Your task to perform on an android device: open app "WhatsApp Messenger" Image 0: 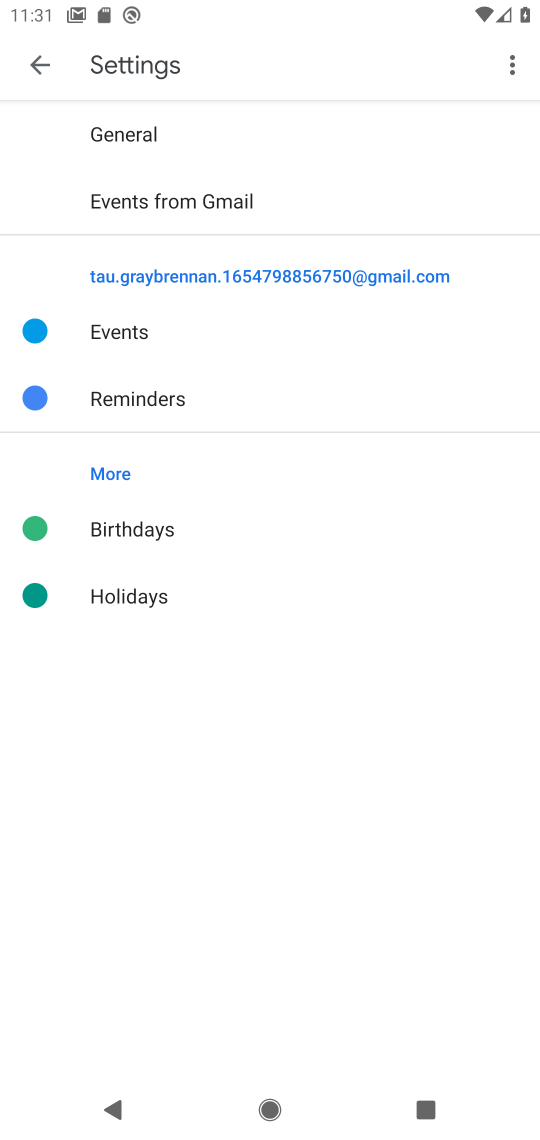
Step 0: press home button
Your task to perform on an android device: open app "WhatsApp Messenger" Image 1: 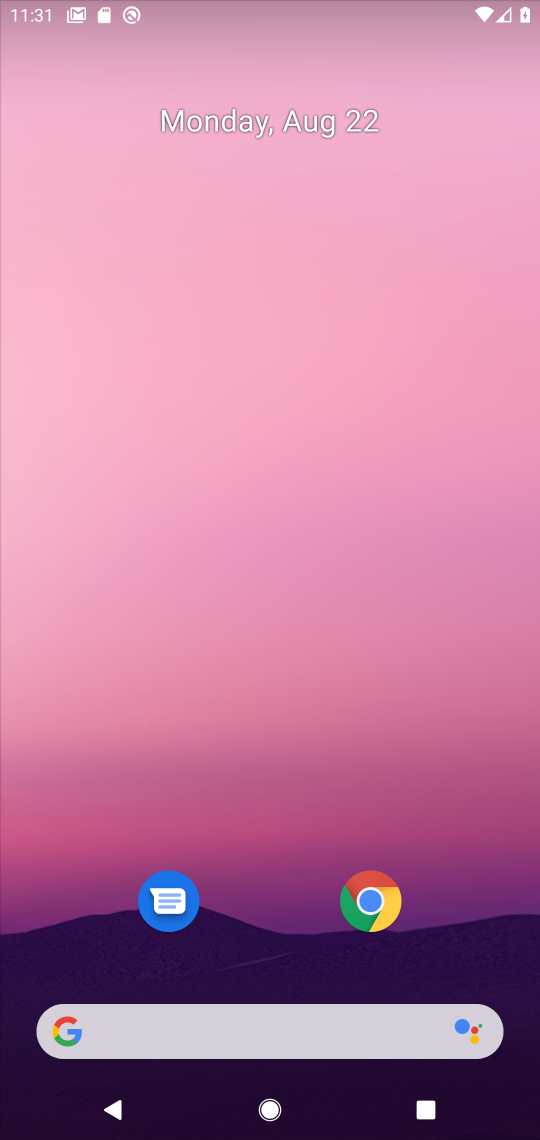
Step 1: drag from (254, 945) to (363, 6)
Your task to perform on an android device: open app "WhatsApp Messenger" Image 2: 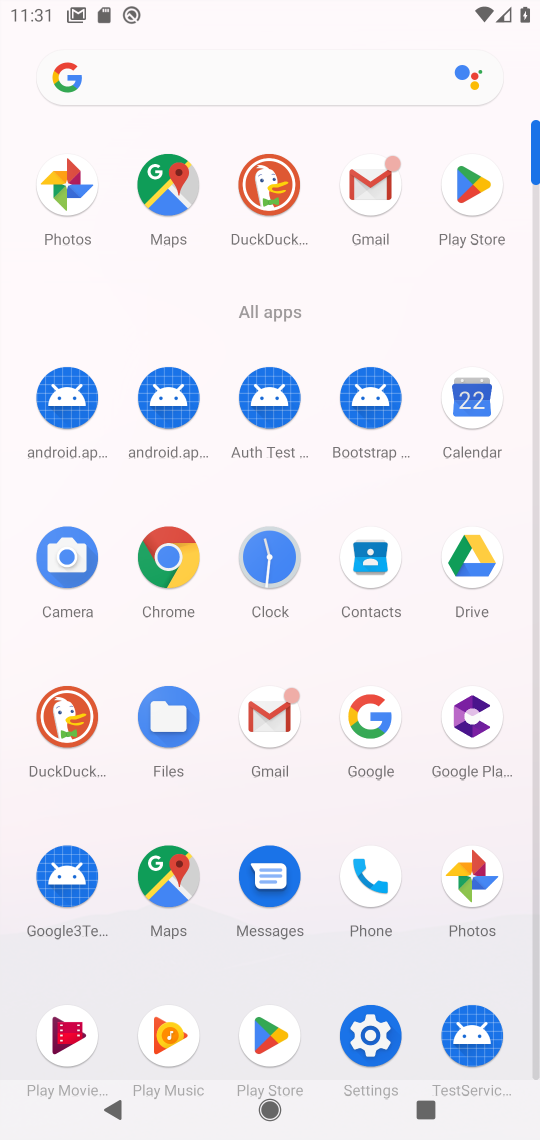
Step 2: click (483, 212)
Your task to perform on an android device: open app "WhatsApp Messenger" Image 3: 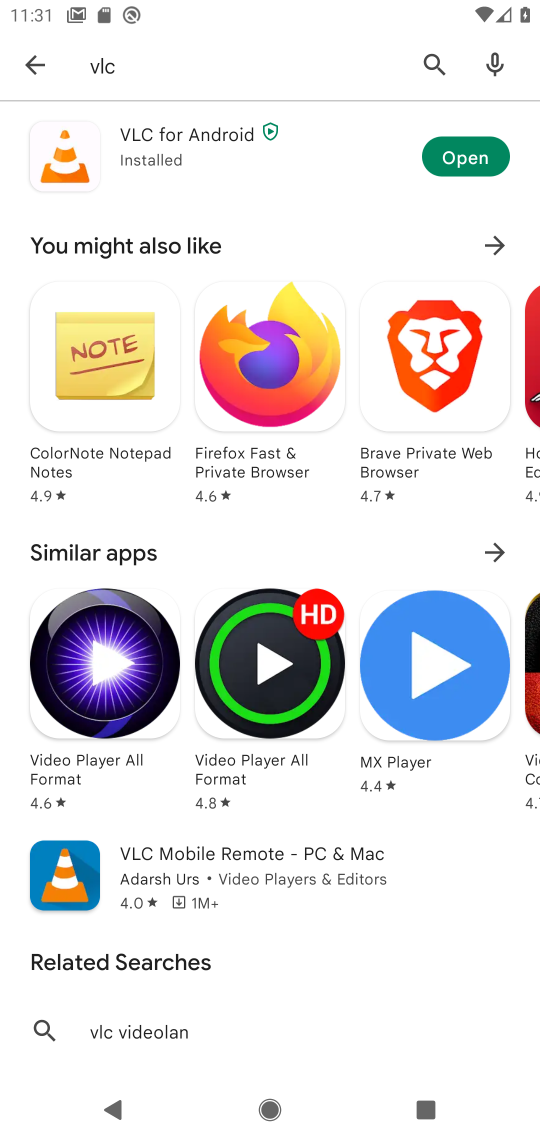
Step 3: click (222, 86)
Your task to perform on an android device: open app "WhatsApp Messenger" Image 4: 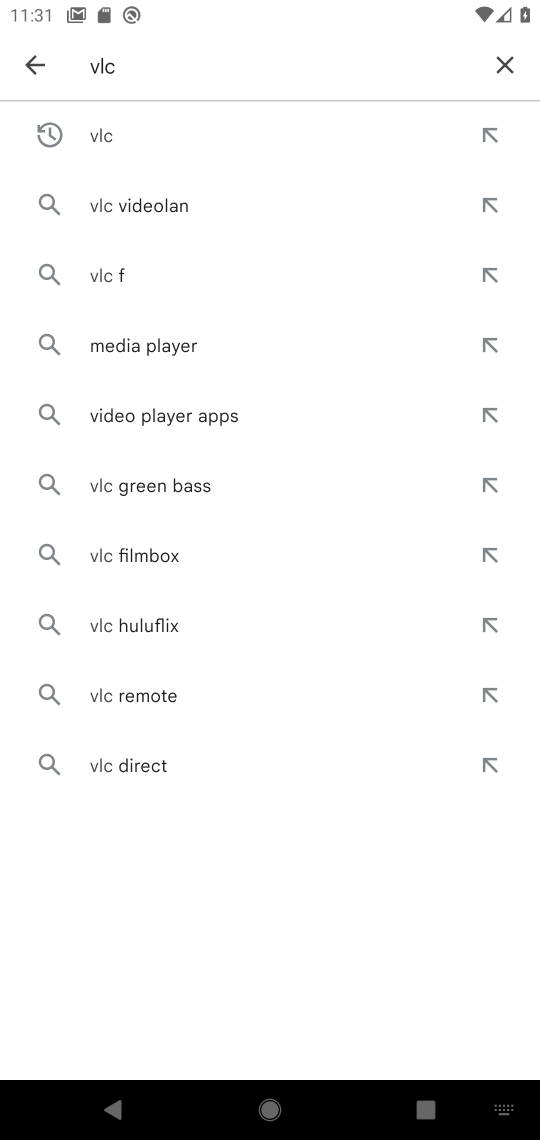
Step 4: click (497, 65)
Your task to perform on an android device: open app "WhatsApp Messenger" Image 5: 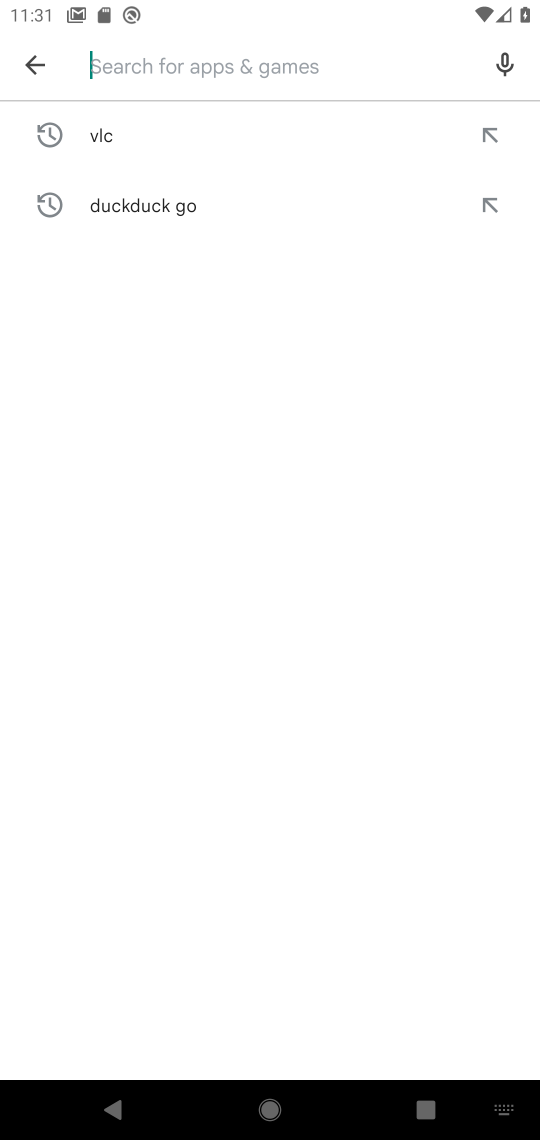
Step 5: type "whatsapp messenger"
Your task to perform on an android device: open app "WhatsApp Messenger" Image 6: 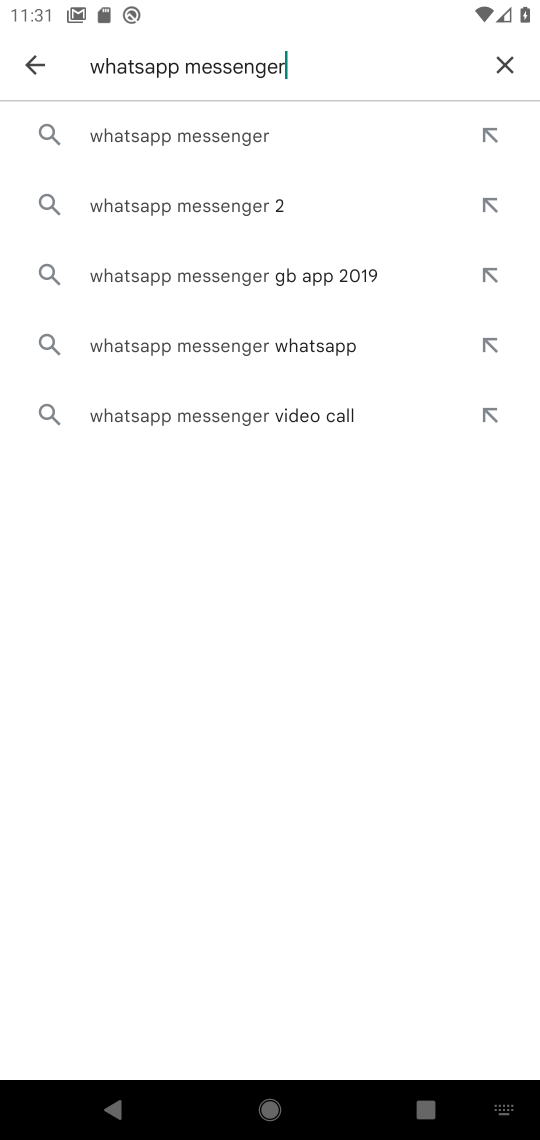
Step 6: click (232, 138)
Your task to perform on an android device: open app "WhatsApp Messenger" Image 7: 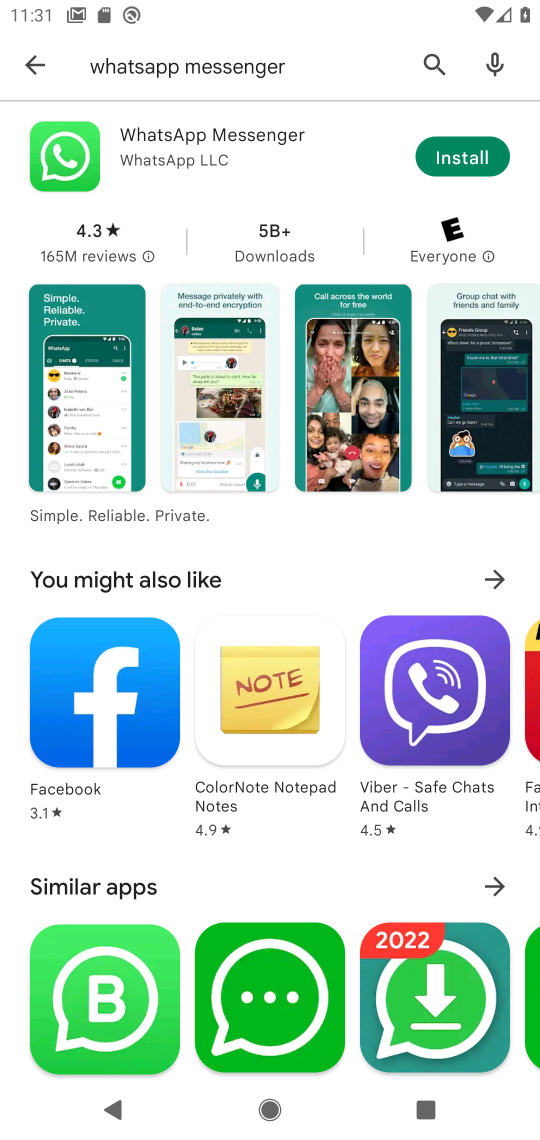
Step 7: task complete